Your task to perform on an android device: change notification settings in the gmail app Image 0: 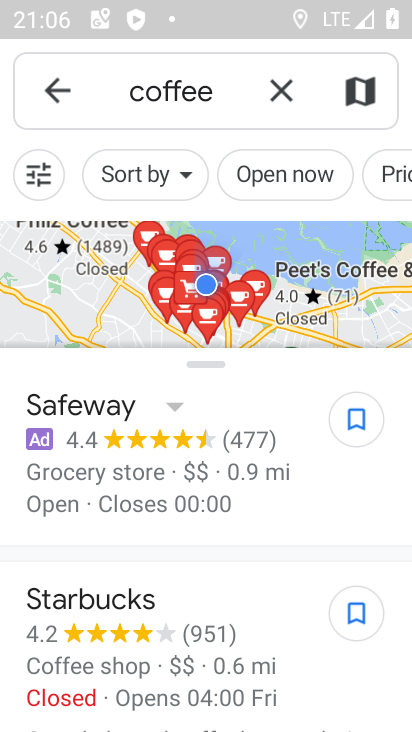
Step 0: press home button
Your task to perform on an android device: change notification settings in the gmail app Image 1: 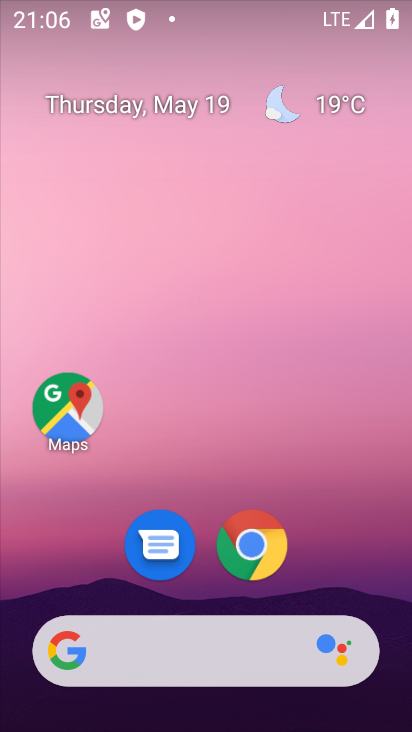
Step 1: drag from (346, 566) to (350, 195)
Your task to perform on an android device: change notification settings in the gmail app Image 2: 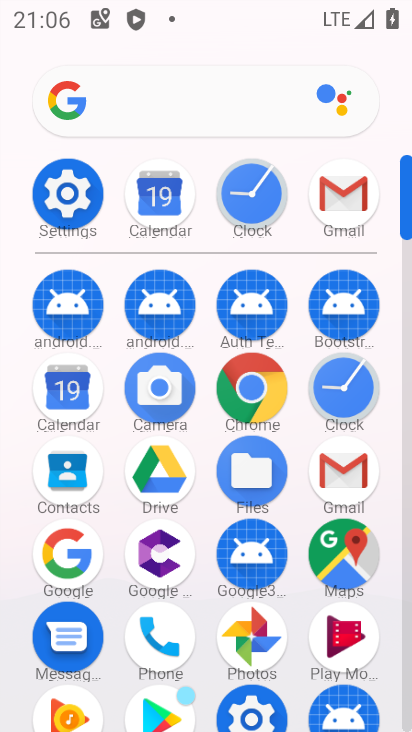
Step 2: click (346, 210)
Your task to perform on an android device: change notification settings in the gmail app Image 3: 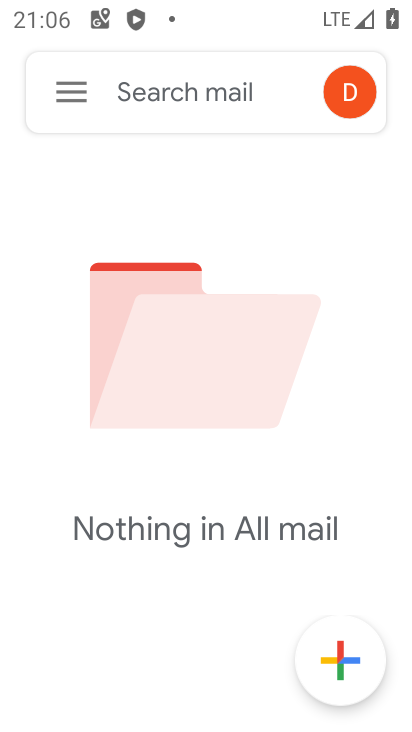
Step 3: click (68, 106)
Your task to perform on an android device: change notification settings in the gmail app Image 4: 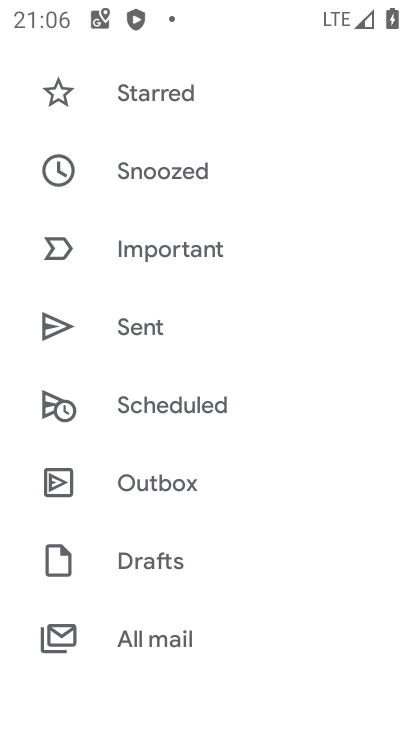
Step 4: drag from (106, 576) to (141, 352)
Your task to perform on an android device: change notification settings in the gmail app Image 5: 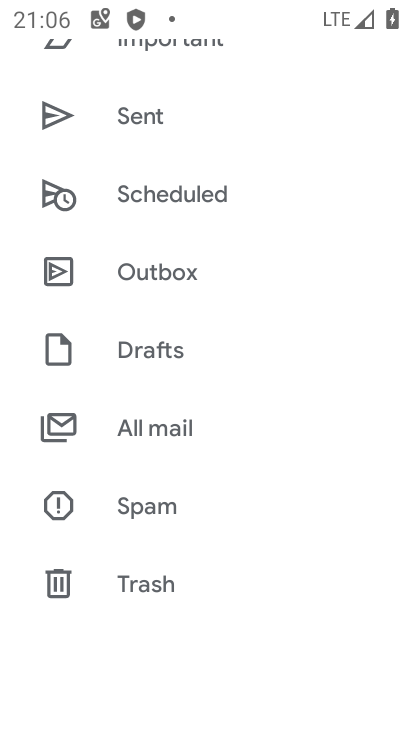
Step 5: drag from (143, 593) to (220, 252)
Your task to perform on an android device: change notification settings in the gmail app Image 6: 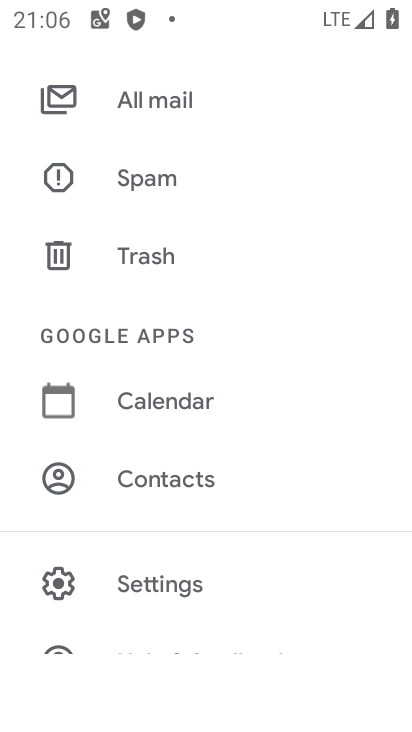
Step 6: click (181, 550)
Your task to perform on an android device: change notification settings in the gmail app Image 7: 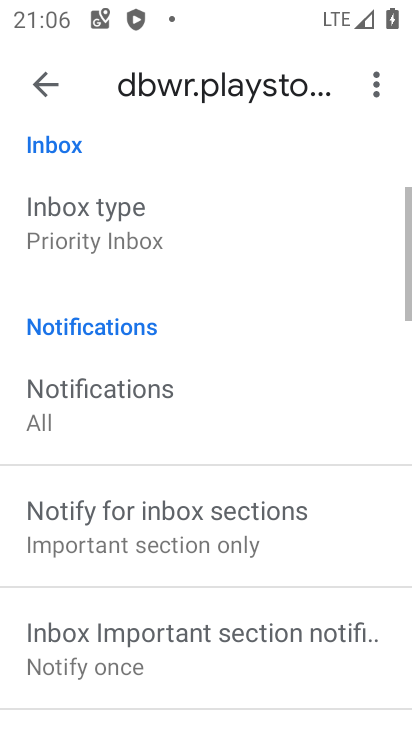
Step 7: drag from (209, 412) to (260, 116)
Your task to perform on an android device: change notification settings in the gmail app Image 8: 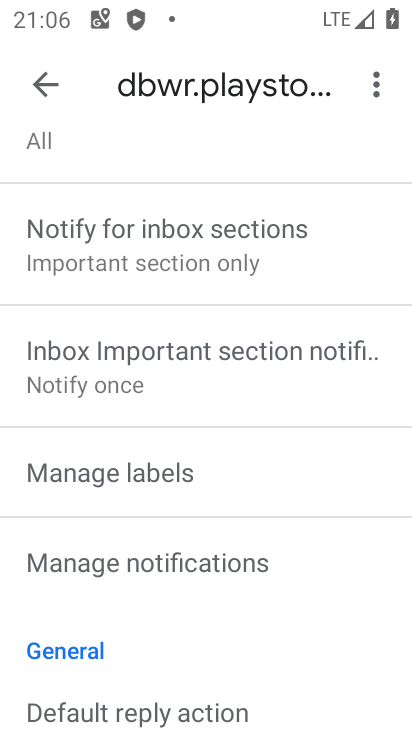
Step 8: drag from (161, 594) to (221, 399)
Your task to perform on an android device: change notification settings in the gmail app Image 9: 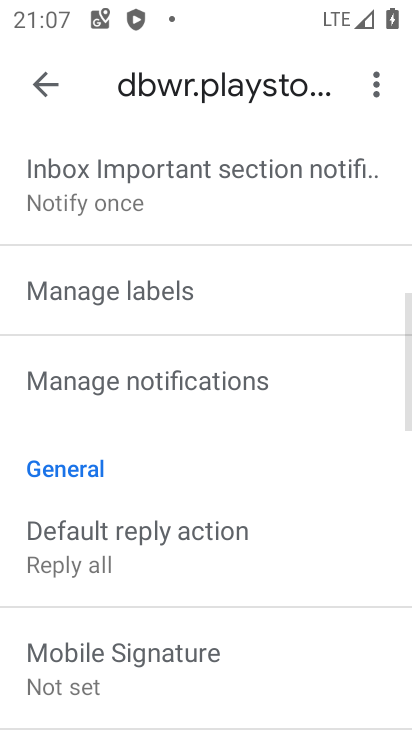
Step 9: click (221, 399)
Your task to perform on an android device: change notification settings in the gmail app Image 10: 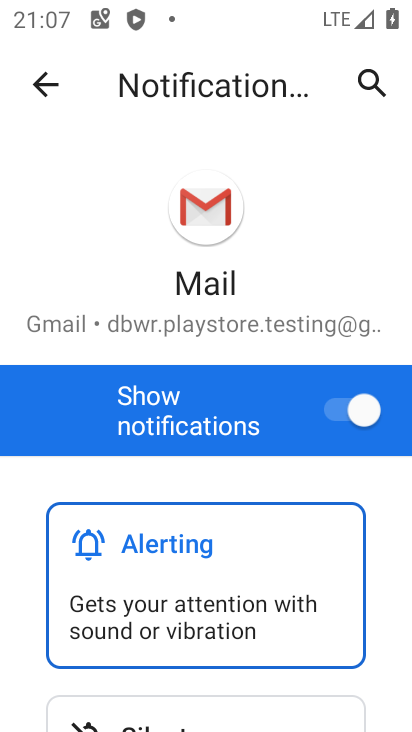
Step 10: task complete